Your task to perform on an android device: check the backup settings in the google photos Image 0: 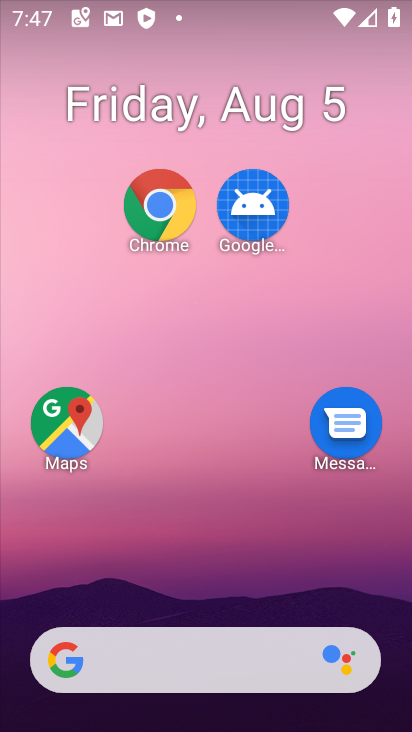
Step 0: drag from (230, 591) to (212, 41)
Your task to perform on an android device: check the backup settings in the google photos Image 1: 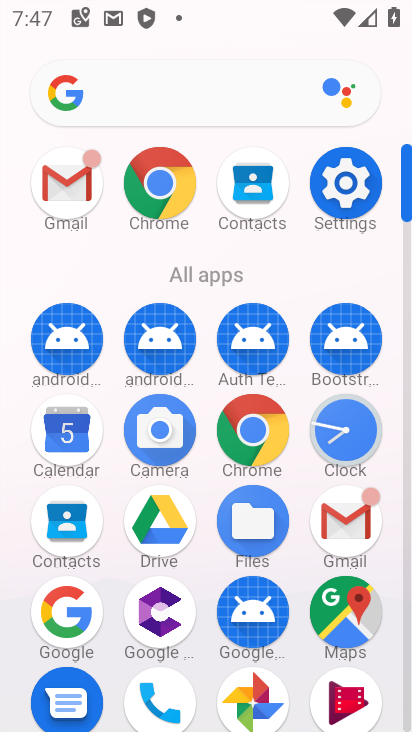
Step 1: click (247, 682)
Your task to perform on an android device: check the backup settings in the google photos Image 2: 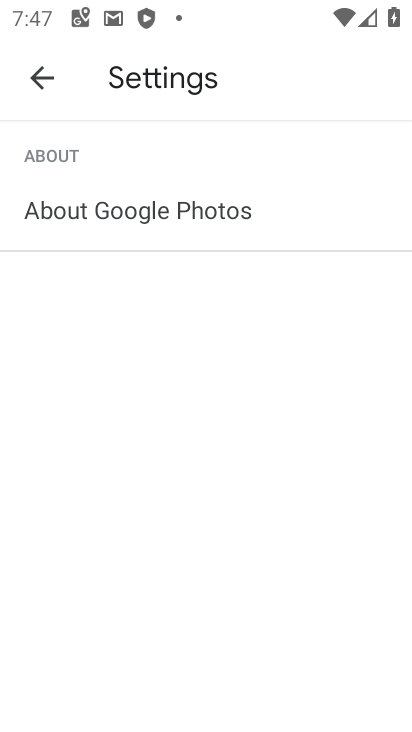
Step 2: click (52, 83)
Your task to perform on an android device: check the backup settings in the google photos Image 3: 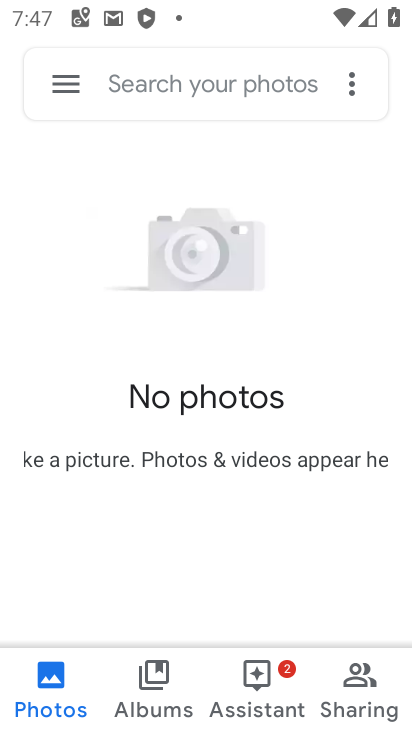
Step 3: click (62, 84)
Your task to perform on an android device: check the backup settings in the google photos Image 4: 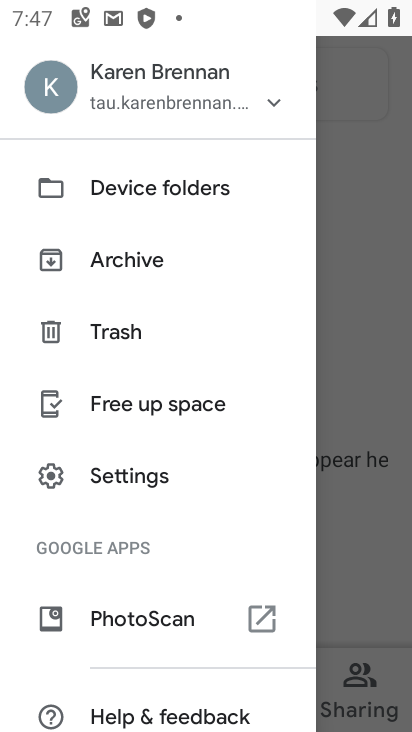
Step 4: click (211, 86)
Your task to perform on an android device: check the backup settings in the google photos Image 5: 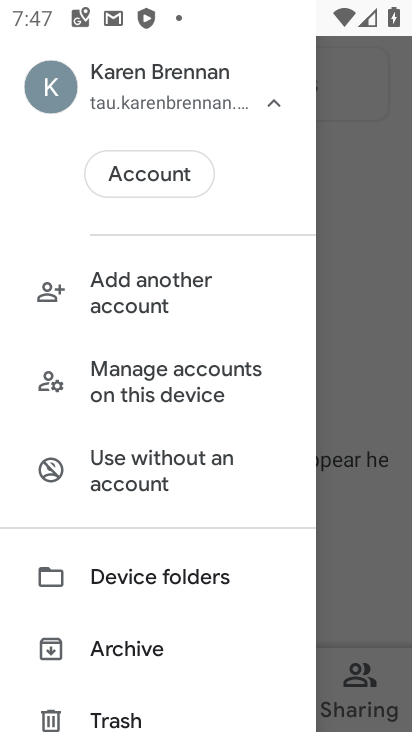
Step 5: click (197, 105)
Your task to perform on an android device: check the backup settings in the google photos Image 6: 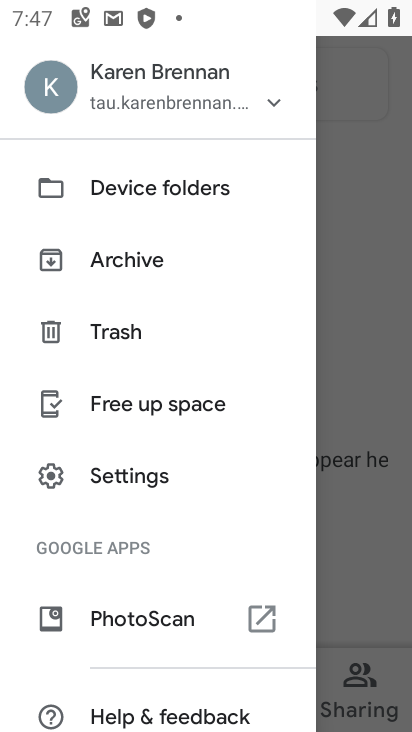
Step 6: click (168, 484)
Your task to perform on an android device: check the backup settings in the google photos Image 7: 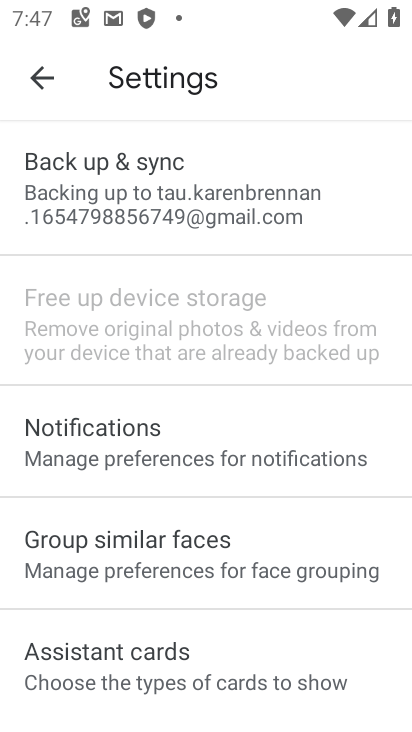
Step 7: click (188, 214)
Your task to perform on an android device: check the backup settings in the google photos Image 8: 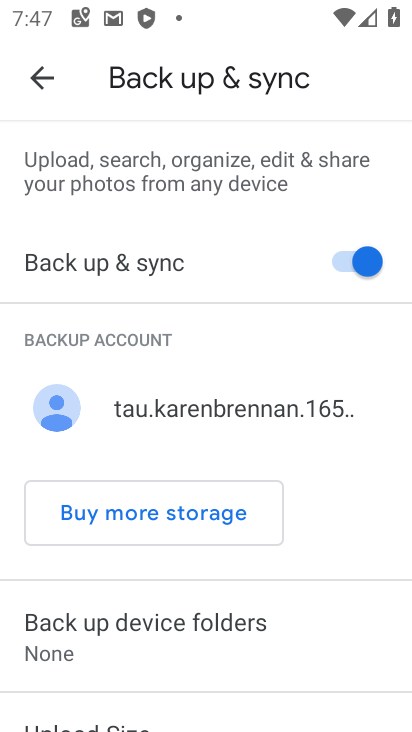
Step 8: task complete